Your task to perform on an android device: set default search engine in the chrome app Image 0: 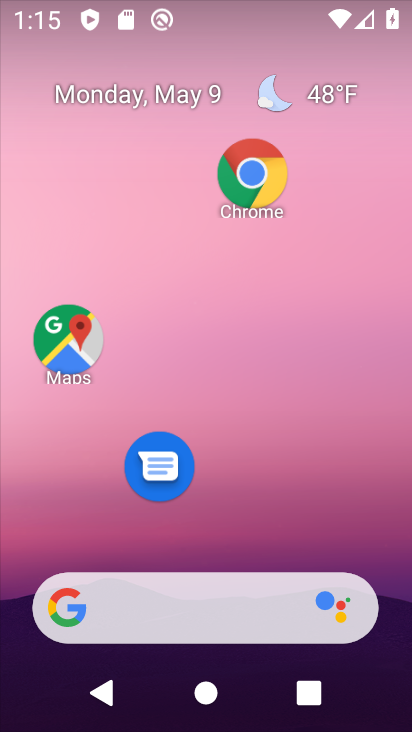
Step 0: click (268, 188)
Your task to perform on an android device: set default search engine in the chrome app Image 1: 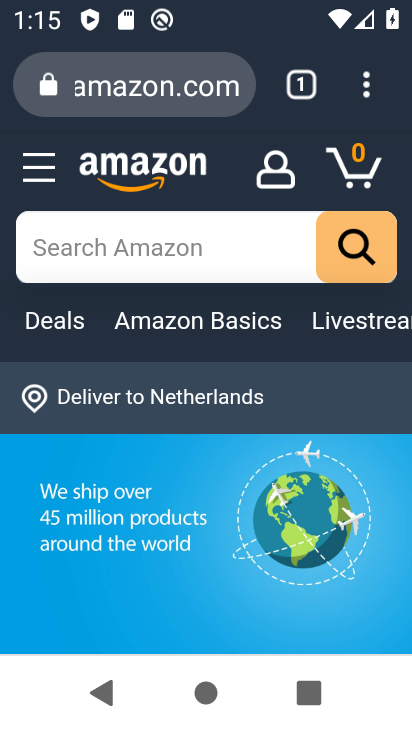
Step 1: click (362, 89)
Your task to perform on an android device: set default search engine in the chrome app Image 2: 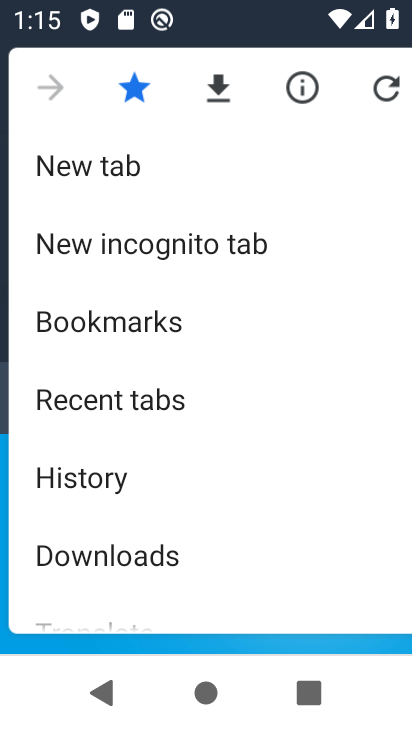
Step 2: drag from (169, 533) to (198, 366)
Your task to perform on an android device: set default search engine in the chrome app Image 3: 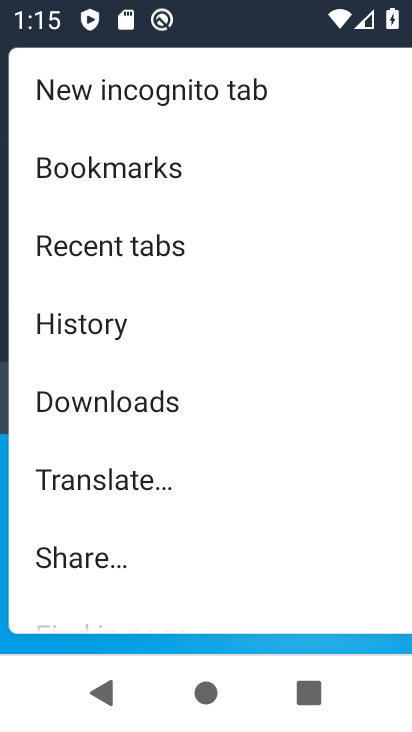
Step 3: drag from (176, 556) to (192, 331)
Your task to perform on an android device: set default search engine in the chrome app Image 4: 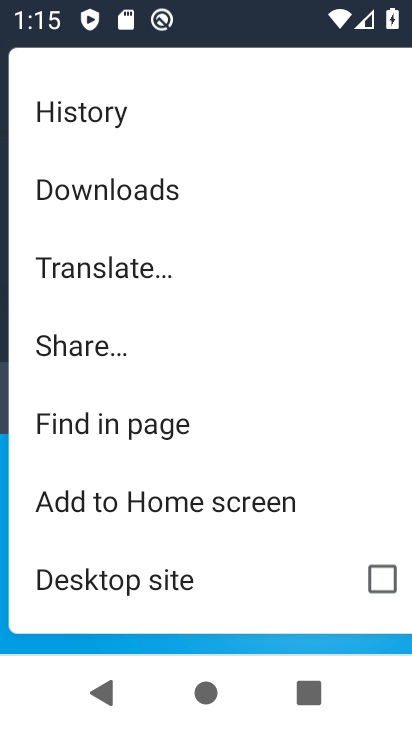
Step 4: drag from (177, 536) to (189, 363)
Your task to perform on an android device: set default search engine in the chrome app Image 5: 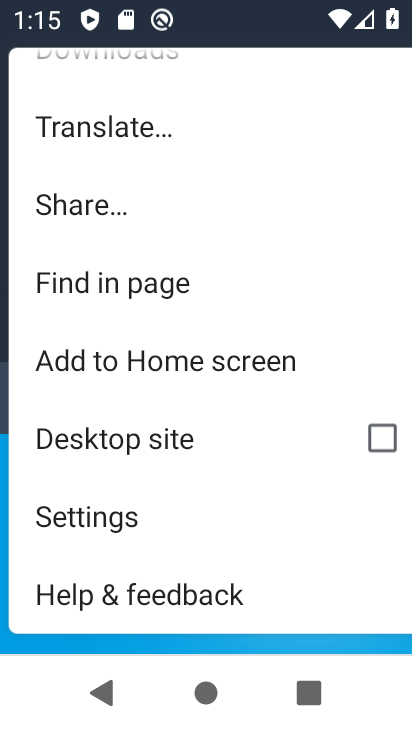
Step 5: click (119, 509)
Your task to perform on an android device: set default search engine in the chrome app Image 6: 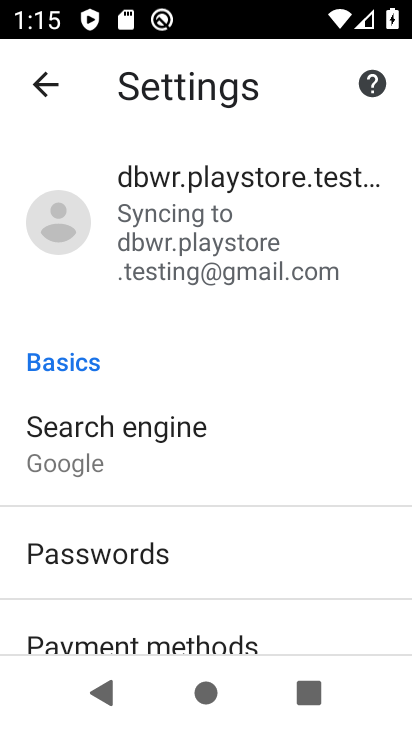
Step 6: click (124, 454)
Your task to perform on an android device: set default search engine in the chrome app Image 7: 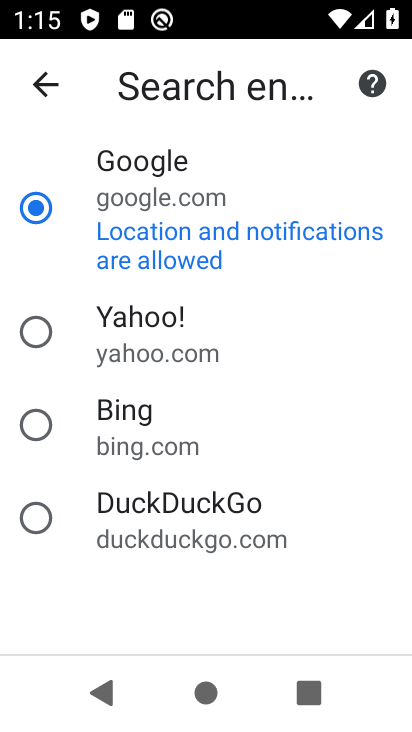
Step 7: click (120, 403)
Your task to perform on an android device: set default search engine in the chrome app Image 8: 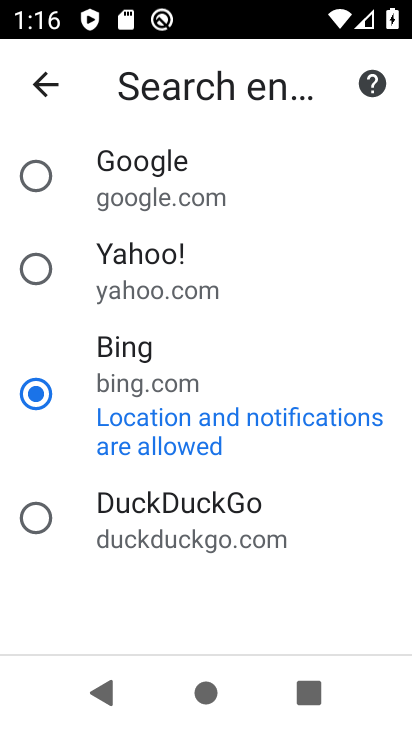
Step 8: task complete